Your task to perform on an android device: Go to privacy settings Image 0: 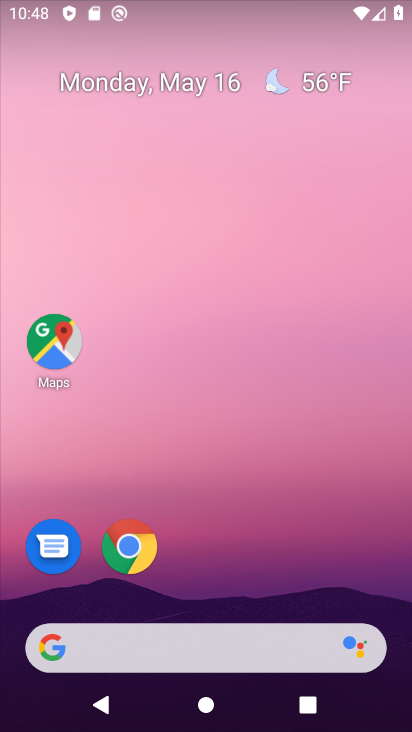
Step 0: drag from (305, 460) to (285, 82)
Your task to perform on an android device: Go to privacy settings Image 1: 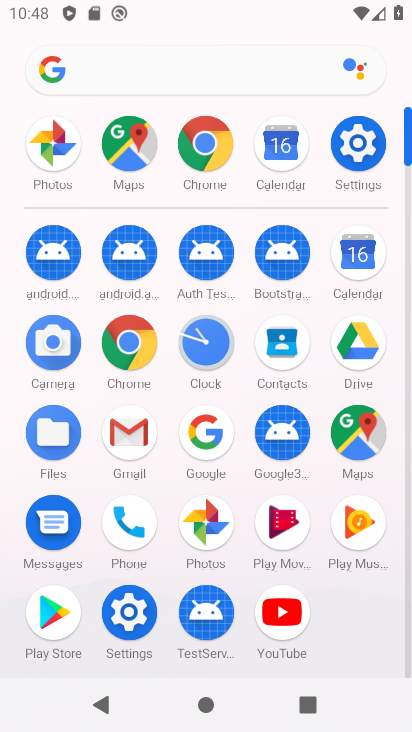
Step 1: click (359, 142)
Your task to perform on an android device: Go to privacy settings Image 2: 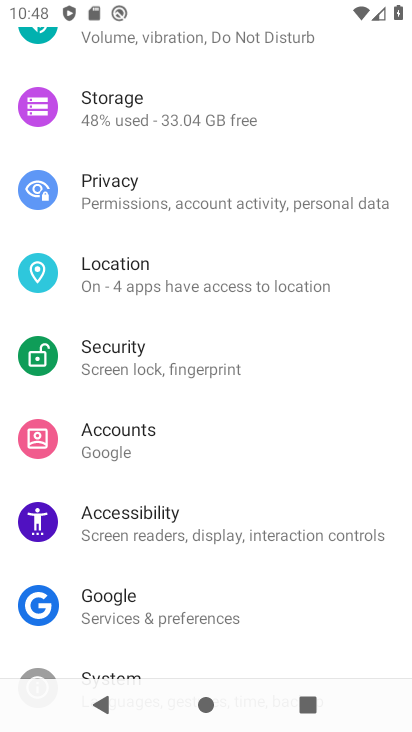
Step 2: click (141, 185)
Your task to perform on an android device: Go to privacy settings Image 3: 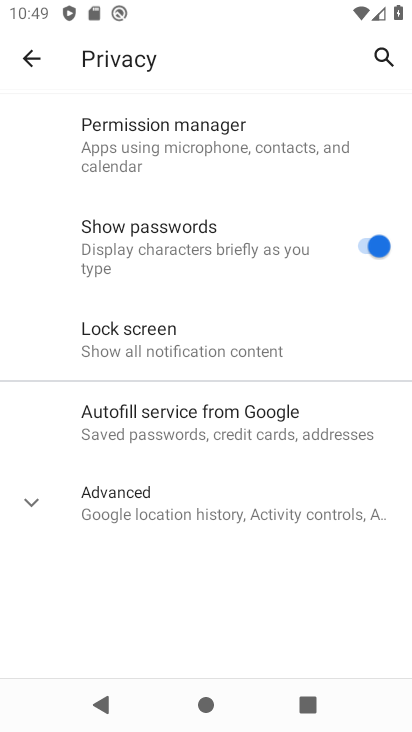
Step 3: task complete